Your task to perform on an android device: Search for pizza restaurants on Maps Image 0: 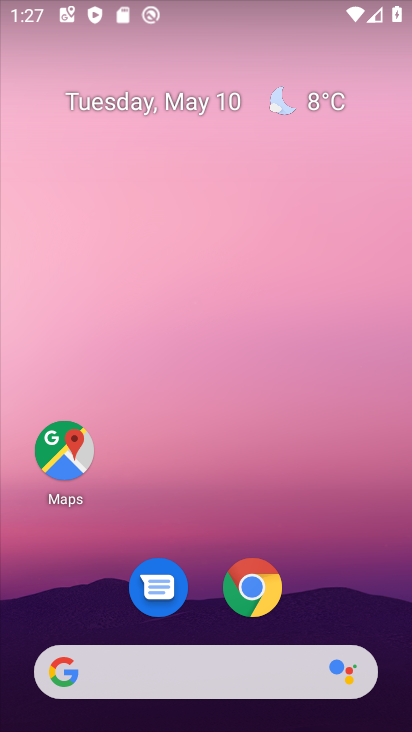
Step 0: click (75, 453)
Your task to perform on an android device: Search for pizza restaurants on Maps Image 1: 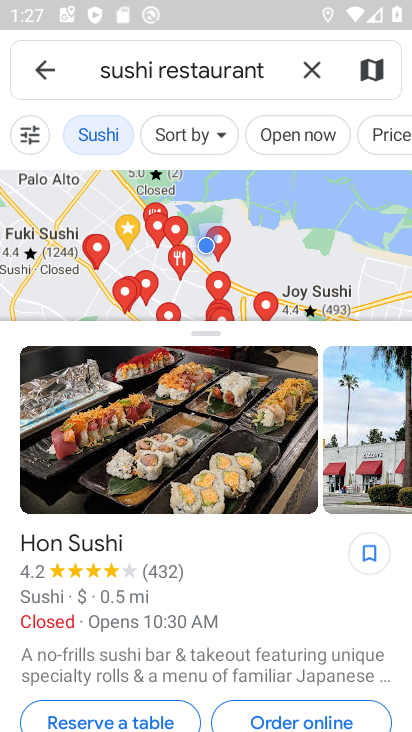
Step 1: click (245, 74)
Your task to perform on an android device: Search for pizza restaurants on Maps Image 2: 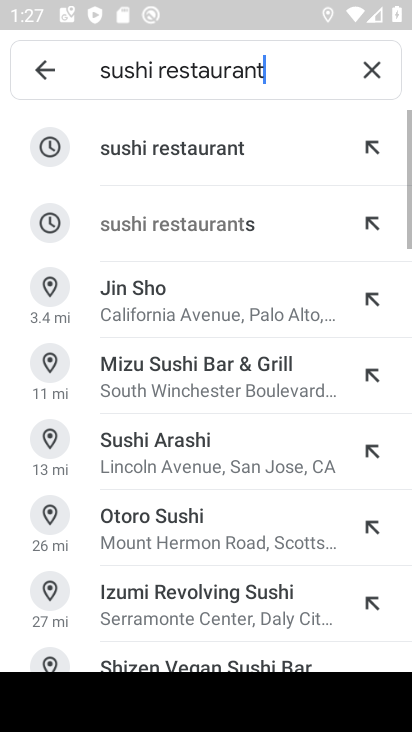
Step 2: click (366, 62)
Your task to perform on an android device: Search for pizza restaurants on Maps Image 3: 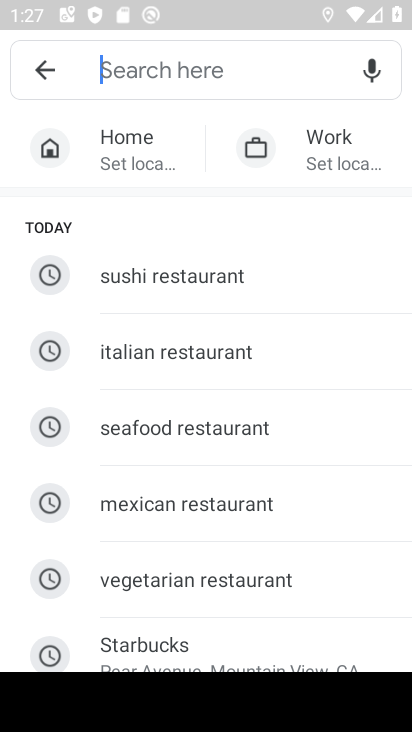
Step 3: drag from (191, 544) to (166, 310)
Your task to perform on an android device: Search for pizza restaurants on Maps Image 4: 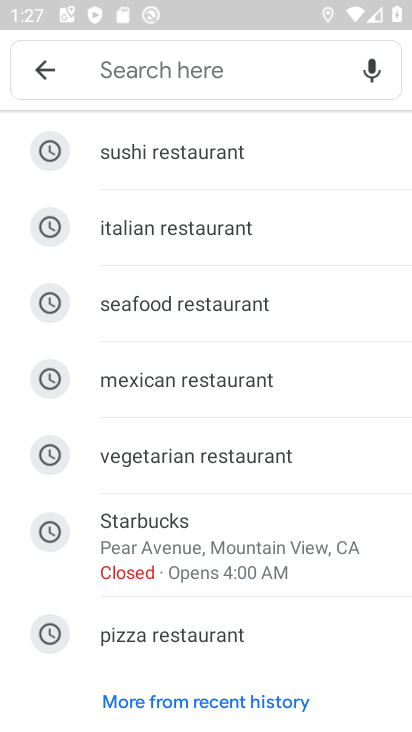
Step 4: click (198, 632)
Your task to perform on an android device: Search for pizza restaurants on Maps Image 5: 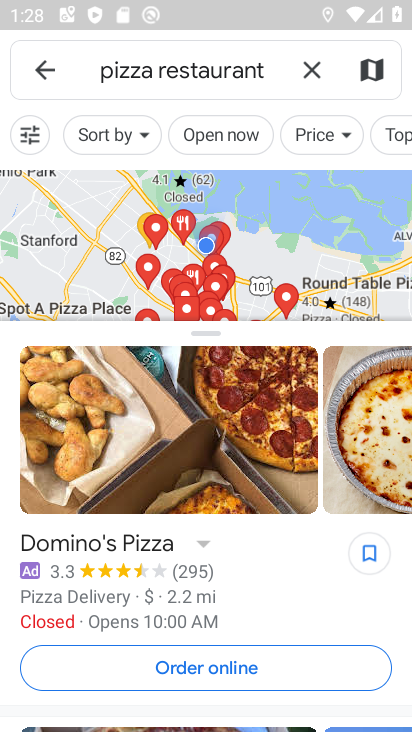
Step 5: task complete